Your task to perform on an android device: Go to Reddit.com Image 0: 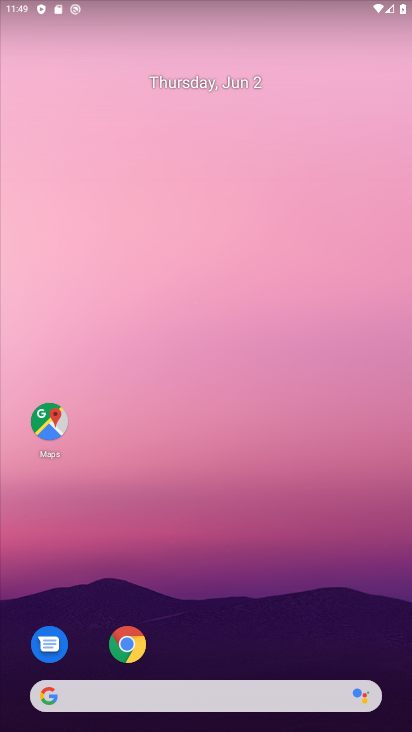
Step 0: click (127, 644)
Your task to perform on an android device: Go to Reddit.com Image 1: 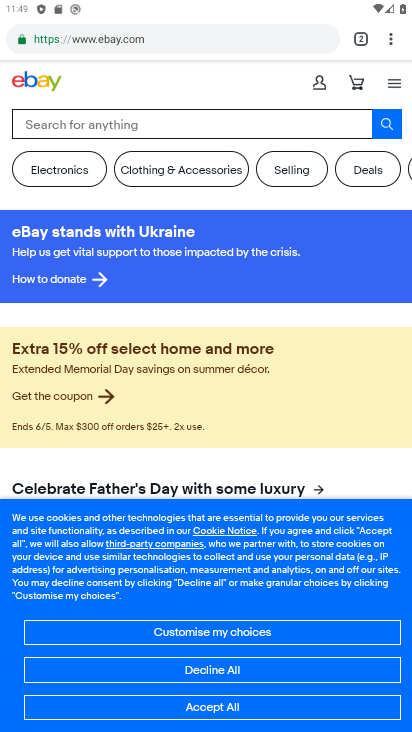
Step 1: click (393, 45)
Your task to perform on an android device: Go to Reddit.com Image 2: 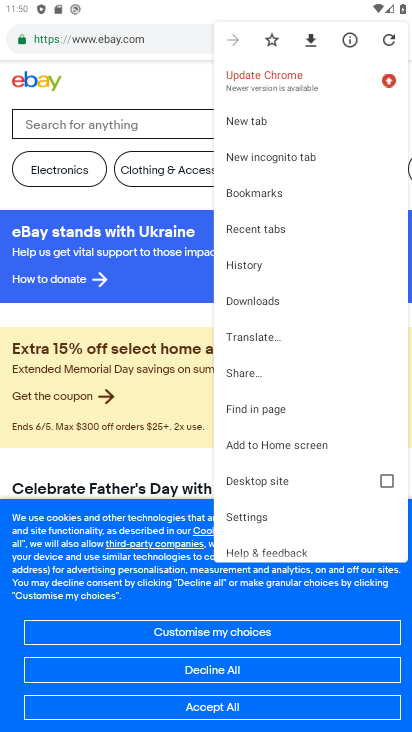
Step 2: click (243, 121)
Your task to perform on an android device: Go to Reddit.com Image 3: 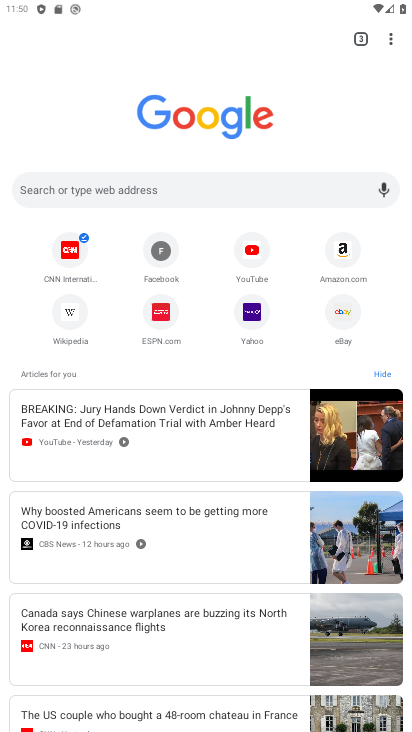
Step 3: click (221, 192)
Your task to perform on an android device: Go to Reddit.com Image 4: 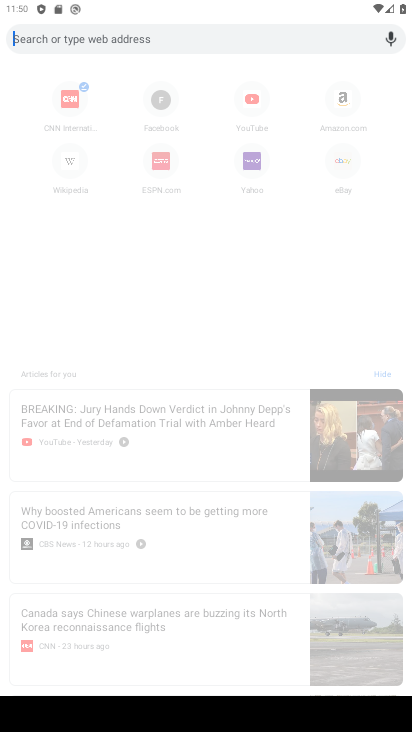
Step 4: type "Reddit.com"
Your task to perform on an android device: Go to Reddit.com Image 5: 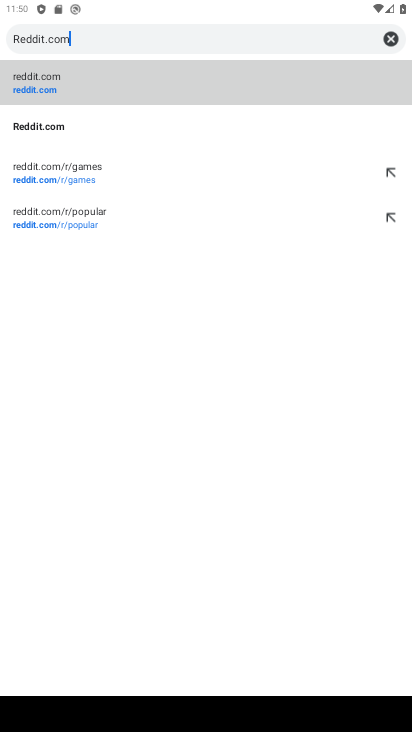
Step 5: type ""
Your task to perform on an android device: Go to Reddit.com Image 6: 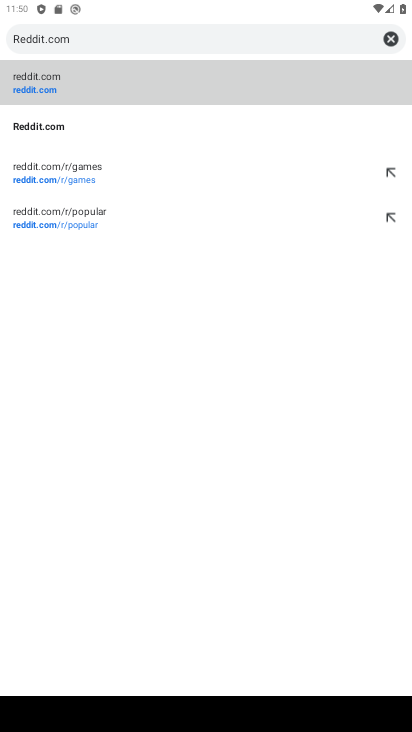
Step 6: click (65, 85)
Your task to perform on an android device: Go to Reddit.com Image 7: 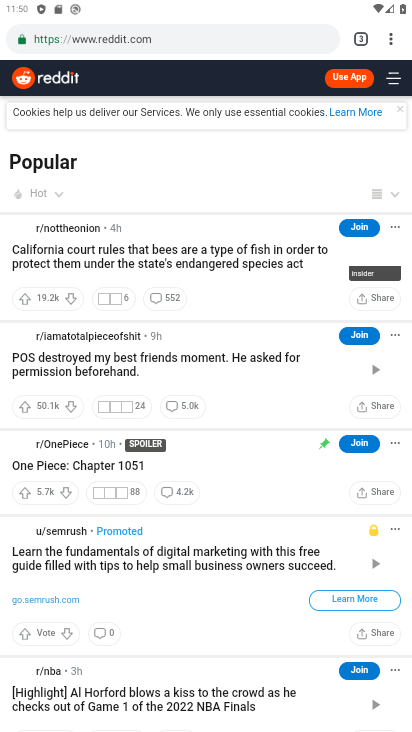
Step 7: task complete